Your task to perform on an android device: What's the price of the Vizio TV? Image 0: 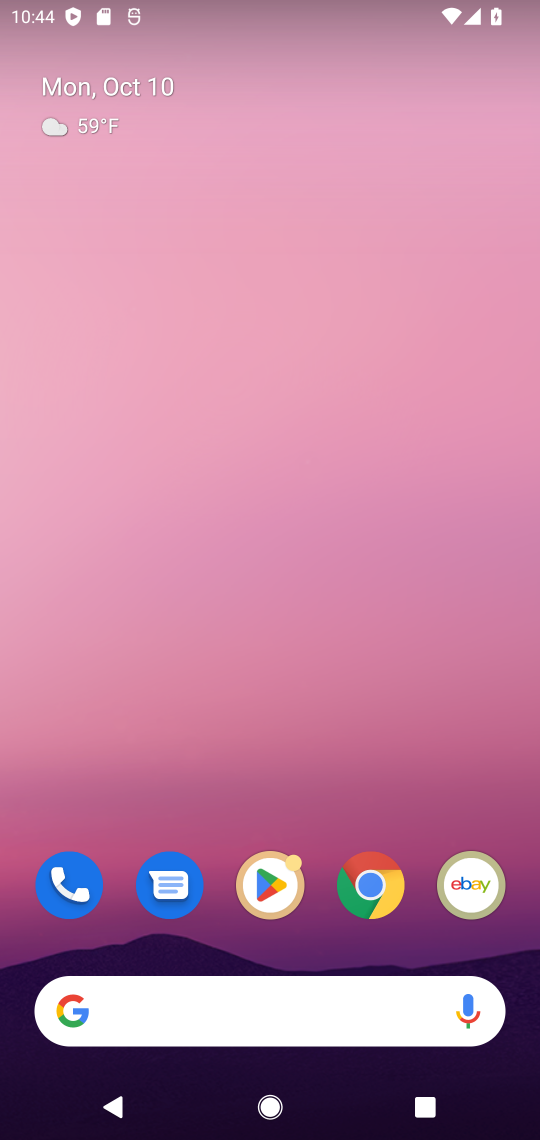
Step 0: drag from (355, 1000) to (375, 658)
Your task to perform on an android device: What's the price of the Vizio TV? Image 1: 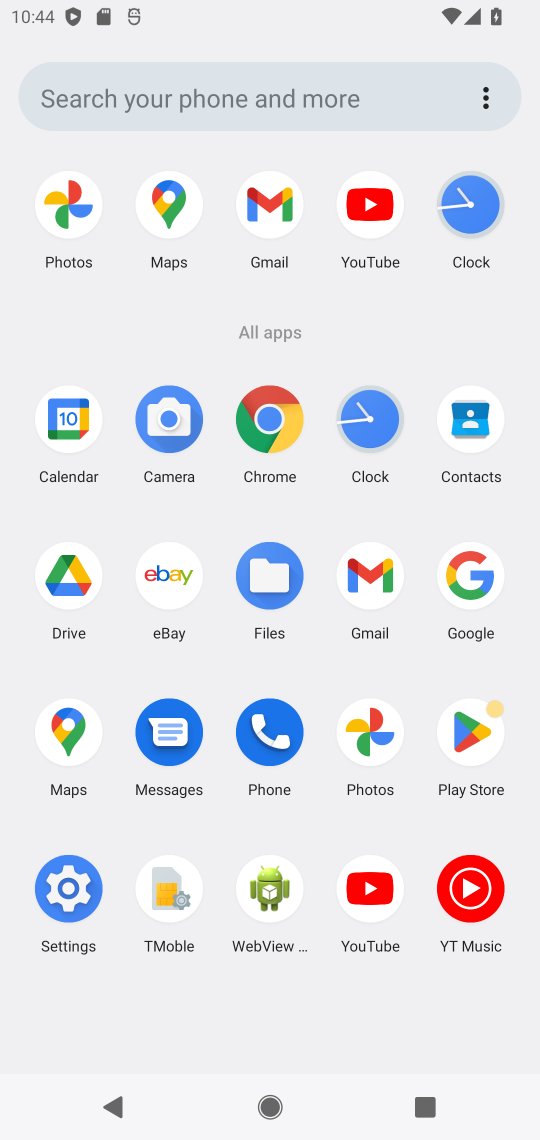
Step 1: click (466, 595)
Your task to perform on an android device: What's the price of the Vizio TV? Image 2: 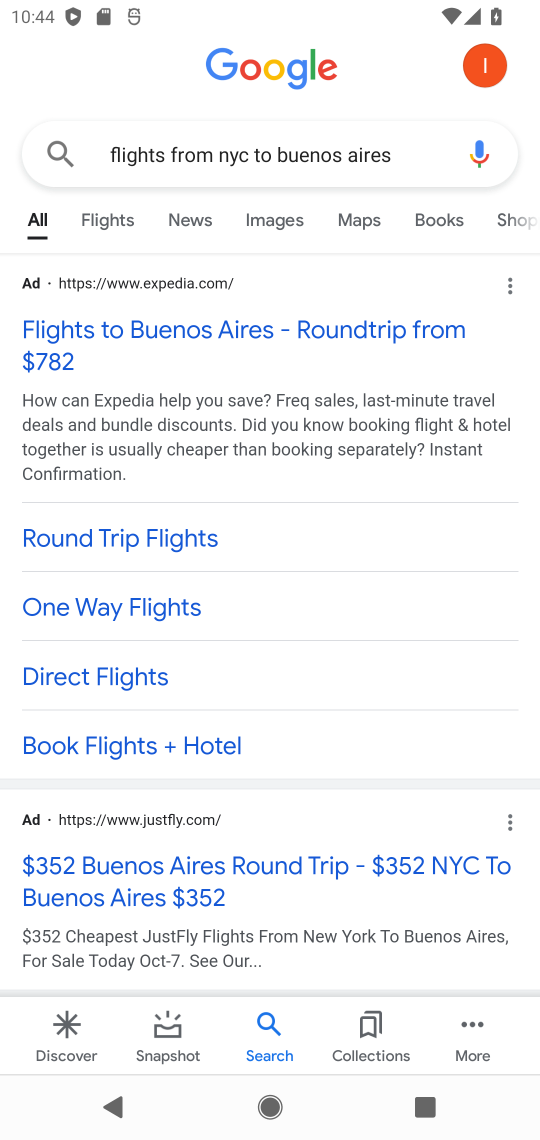
Step 2: click (412, 145)
Your task to perform on an android device: What's the price of the Vizio TV? Image 3: 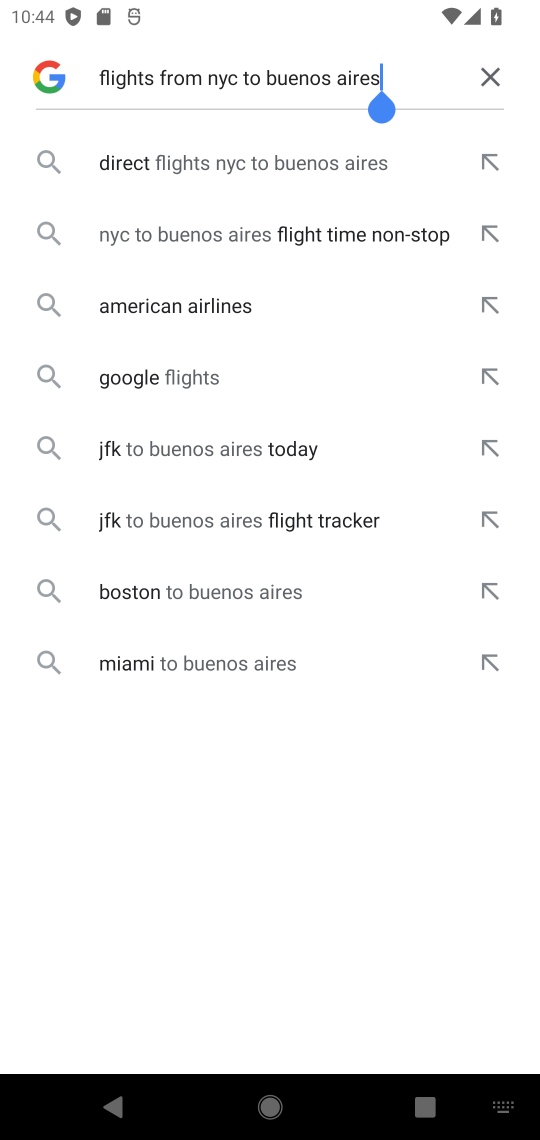
Step 3: click (492, 94)
Your task to perform on an android device: What's the price of the Vizio TV? Image 4: 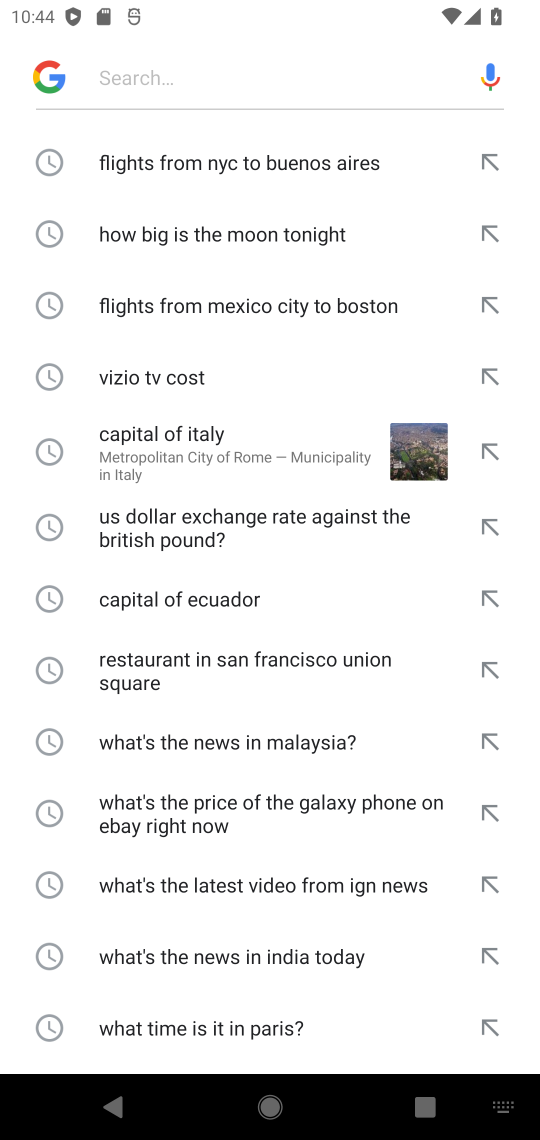
Step 4: type "Vizio TV?"
Your task to perform on an android device: What's the price of the Vizio TV? Image 5: 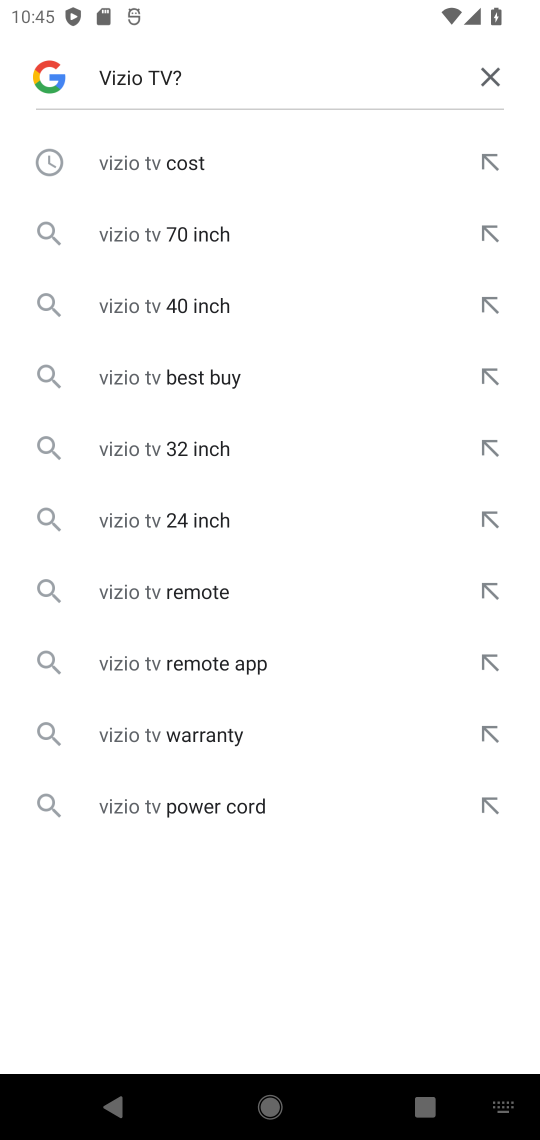
Step 5: click (298, 163)
Your task to perform on an android device: What's the price of the Vizio TV? Image 6: 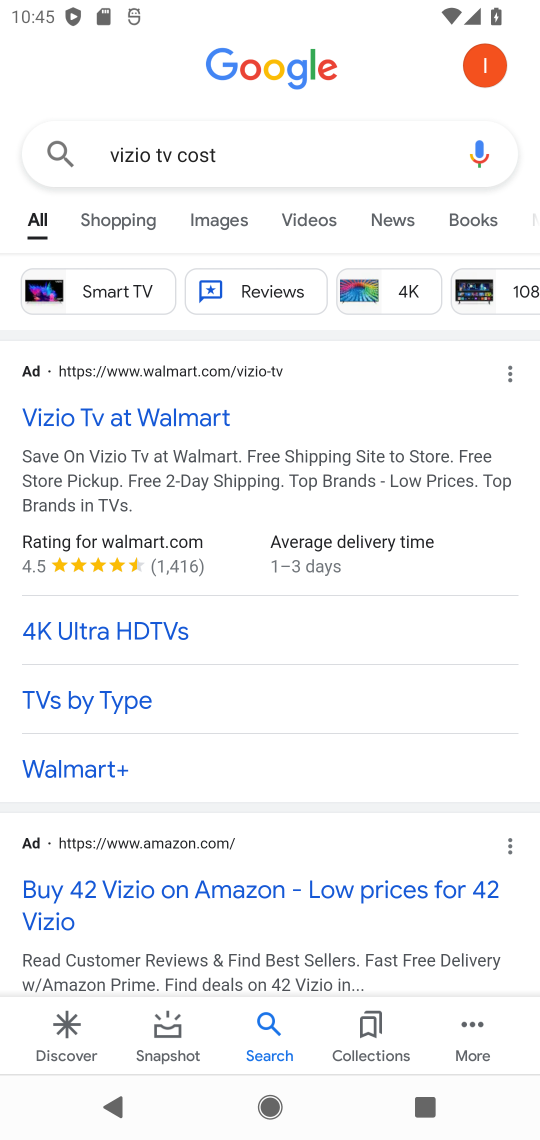
Step 6: click (188, 422)
Your task to perform on an android device: What's the price of the Vizio TV? Image 7: 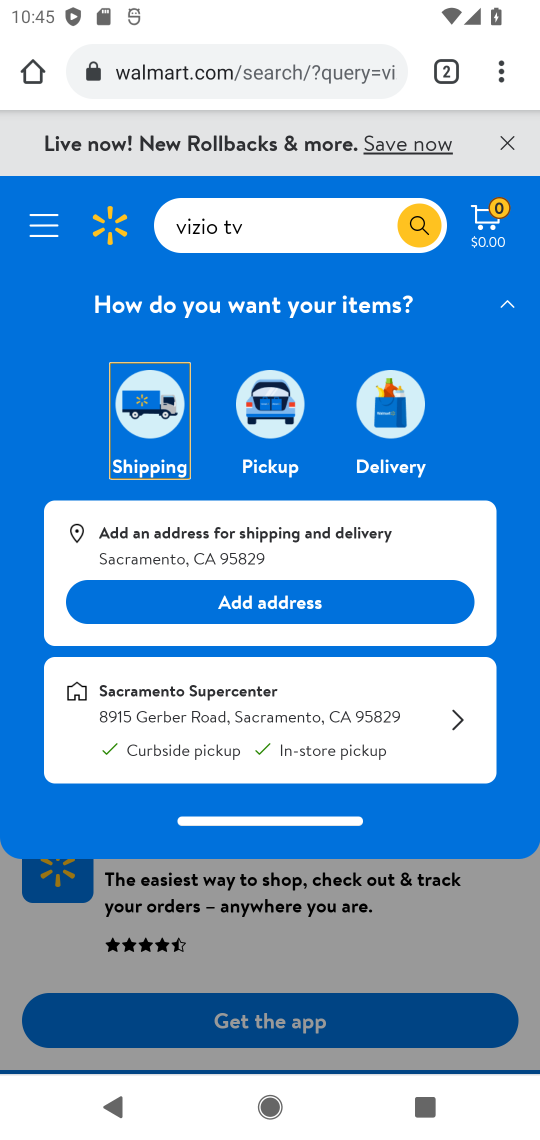
Step 7: task complete